Your task to perform on an android device: Open the phone app and click the voicemail tab. Image 0: 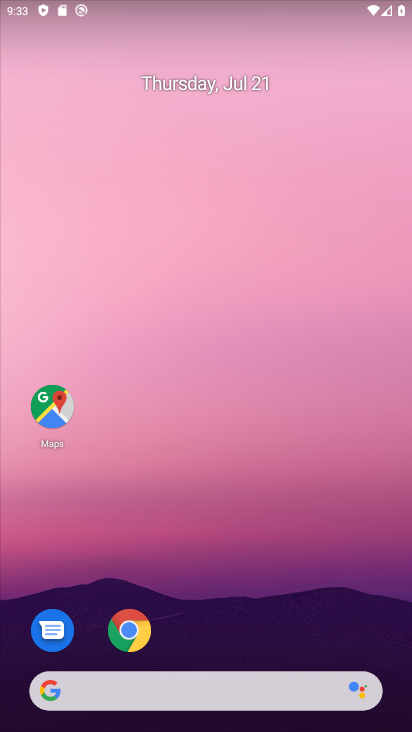
Step 0: drag from (245, 615) to (278, 20)
Your task to perform on an android device: Open the phone app and click the voicemail tab. Image 1: 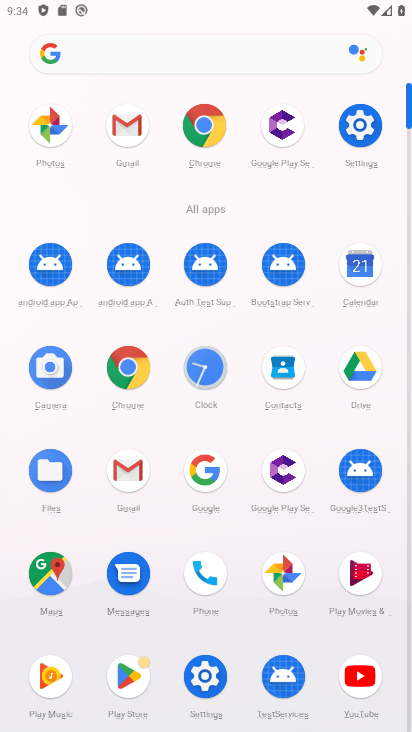
Step 1: click (207, 561)
Your task to perform on an android device: Open the phone app and click the voicemail tab. Image 2: 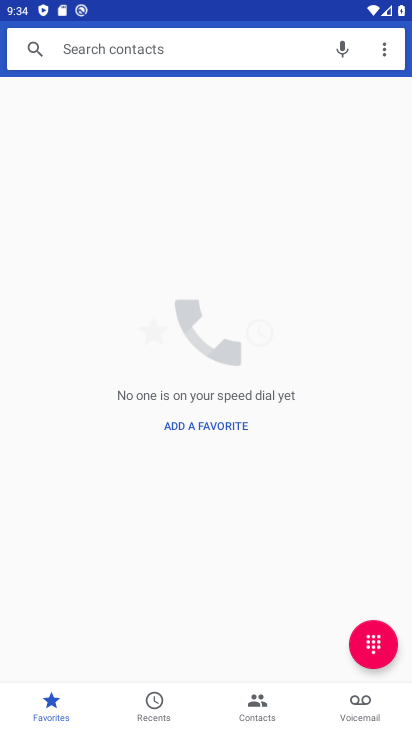
Step 2: click (360, 708)
Your task to perform on an android device: Open the phone app and click the voicemail tab. Image 3: 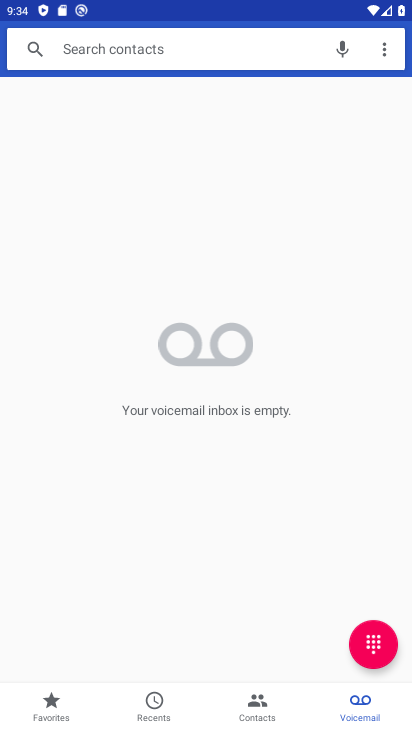
Step 3: task complete